Your task to perform on an android device: turn off location history Image 0: 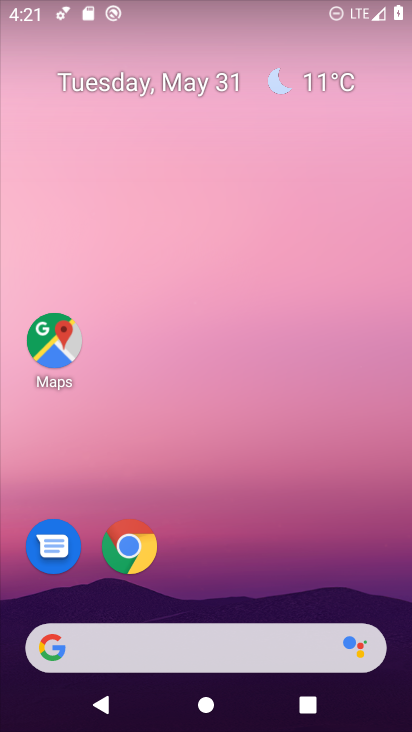
Step 0: drag from (256, 549) to (126, 39)
Your task to perform on an android device: turn off location history Image 1: 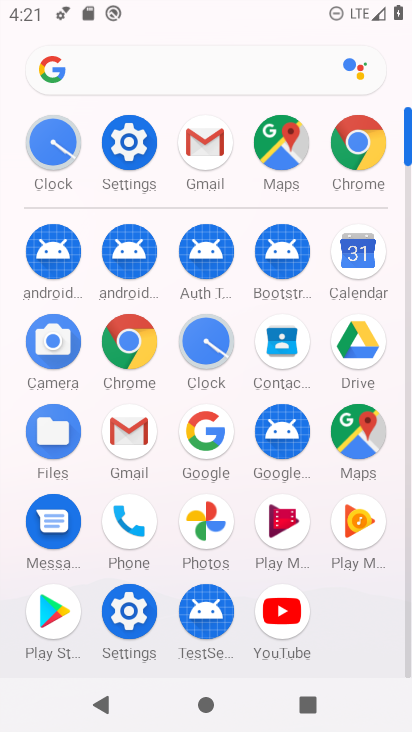
Step 1: click (126, 132)
Your task to perform on an android device: turn off location history Image 2: 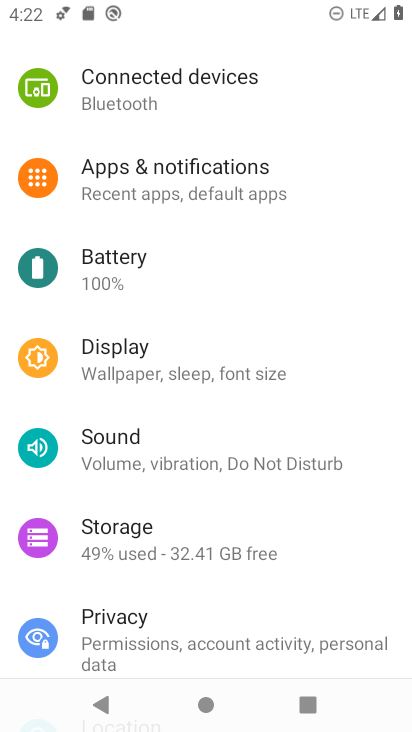
Step 2: drag from (225, 468) to (175, 115)
Your task to perform on an android device: turn off location history Image 3: 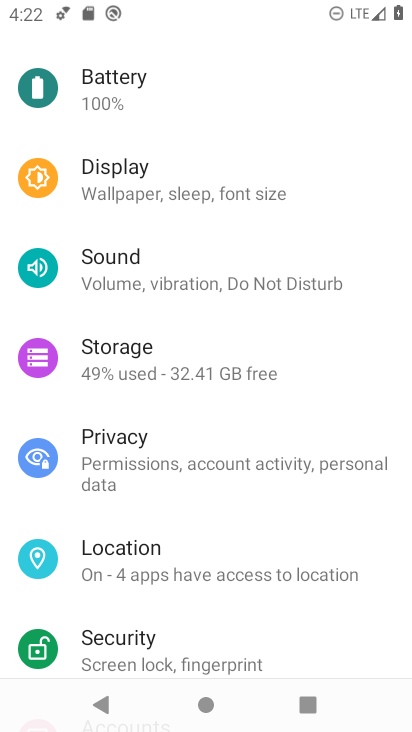
Step 3: click (179, 538)
Your task to perform on an android device: turn off location history Image 4: 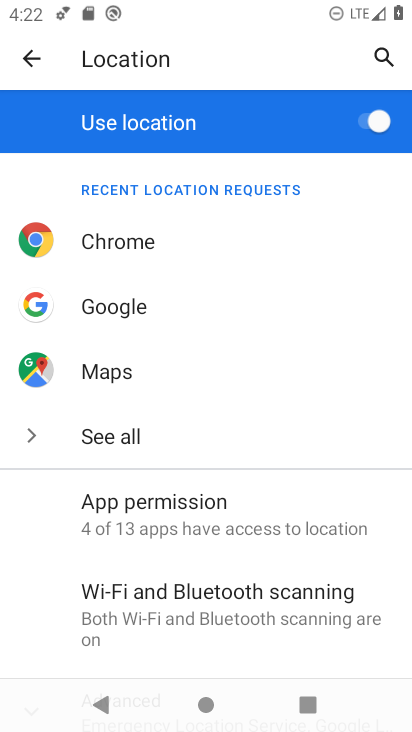
Step 4: drag from (232, 565) to (193, 222)
Your task to perform on an android device: turn off location history Image 5: 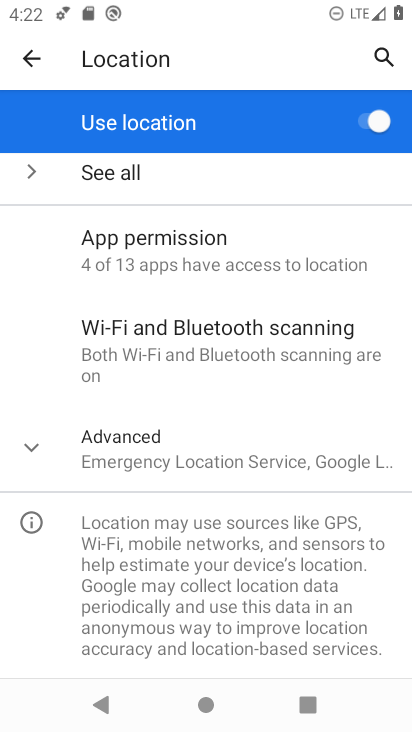
Step 5: click (188, 440)
Your task to perform on an android device: turn off location history Image 6: 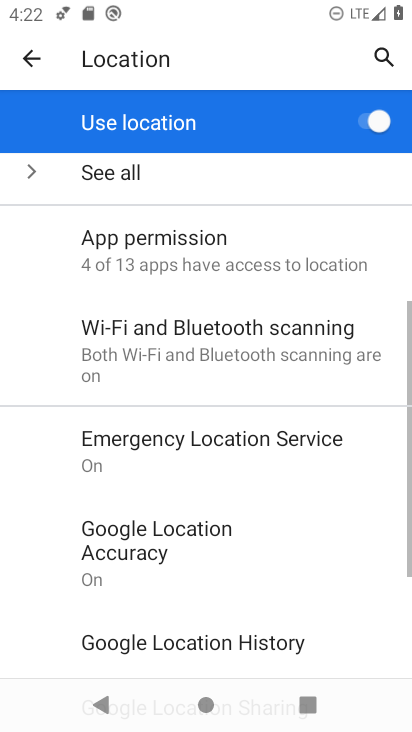
Step 6: drag from (223, 466) to (226, 229)
Your task to perform on an android device: turn off location history Image 7: 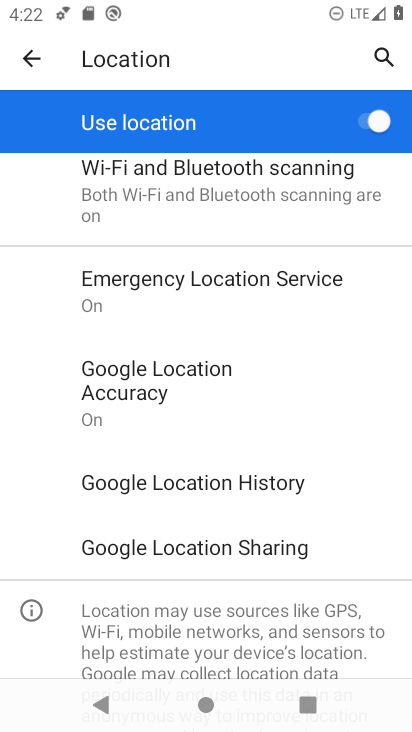
Step 7: click (247, 482)
Your task to perform on an android device: turn off location history Image 8: 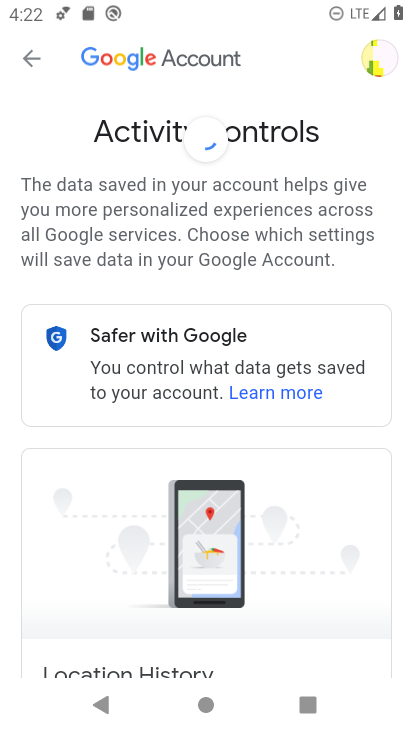
Step 8: drag from (257, 519) to (173, 42)
Your task to perform on an android device: turn off location history Image 9: 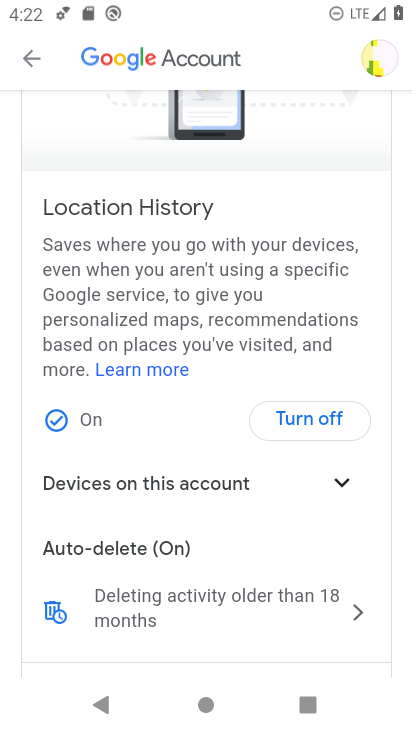
Step 9: click (309, 420)
Your task to perform on an android device: turn off location history Image 10: 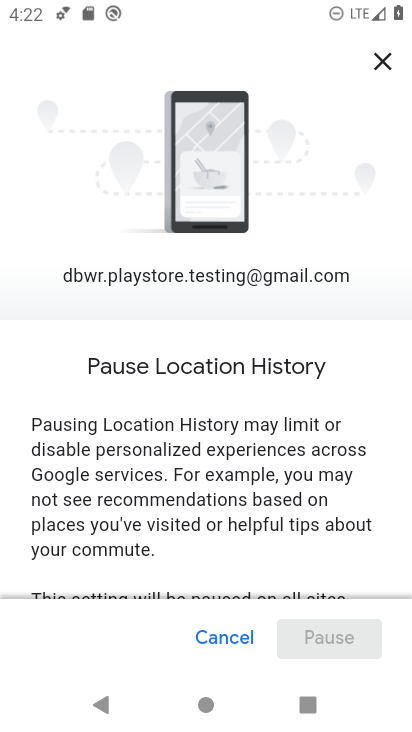
Step 10: click (337, 643)
Your task to perform on an android device: turn off location history Image 11: 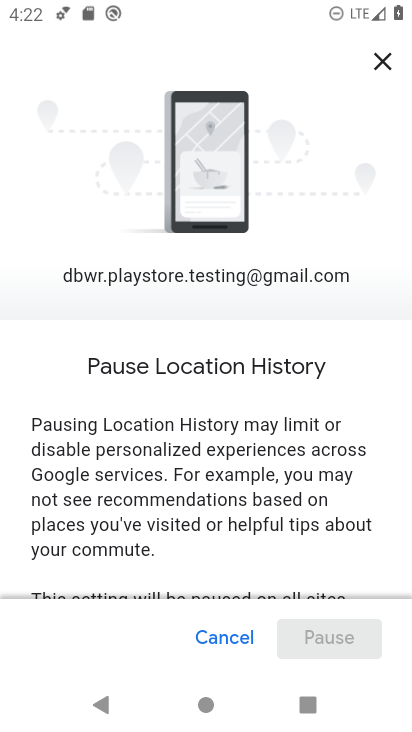
Step 11: drag from (230, 213) to (196, 53)
Your task to perform on an android device: turn off location history Image 12: 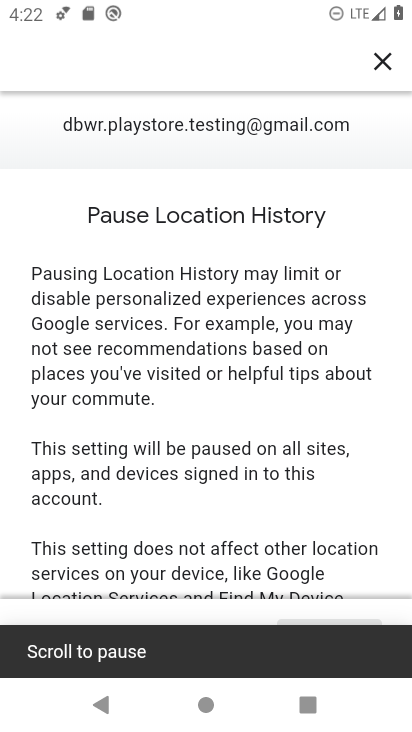
Step 12: drag from (281, 519) to (205, 1)
Your task to perform on an android device: turn off location history Image 13: 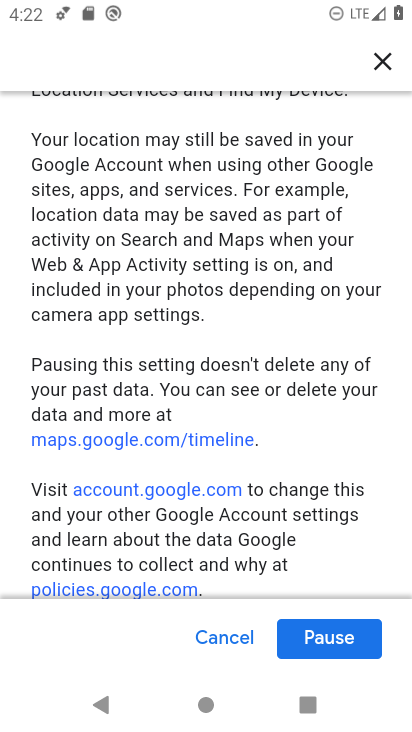
Step 13: drag from (273, 517) to (217, 121)
Your task to perform on an android device: turn off location history Image 14: 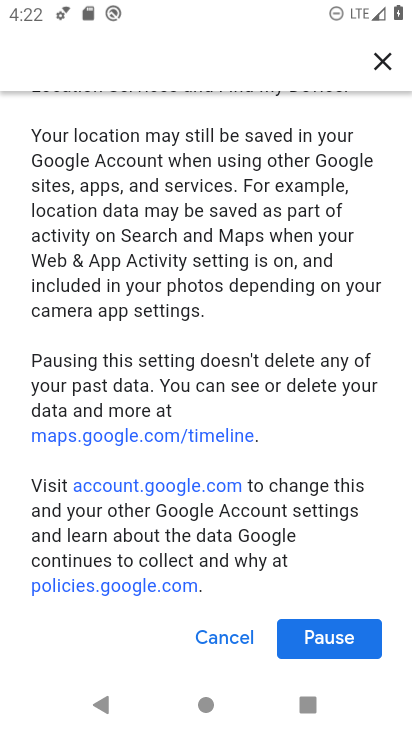
Step 14: click (338, 634)
Your task to perform on an android device: turn off location history Image 15: 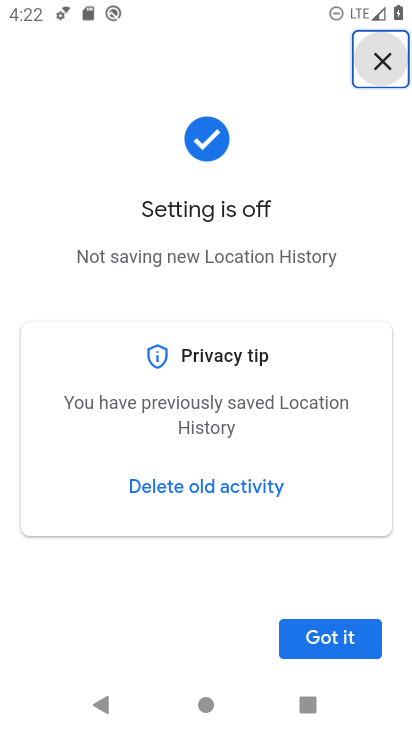
Step 15: click (341, 625)
Your task to perform on an android device: turn off location history Image 16: 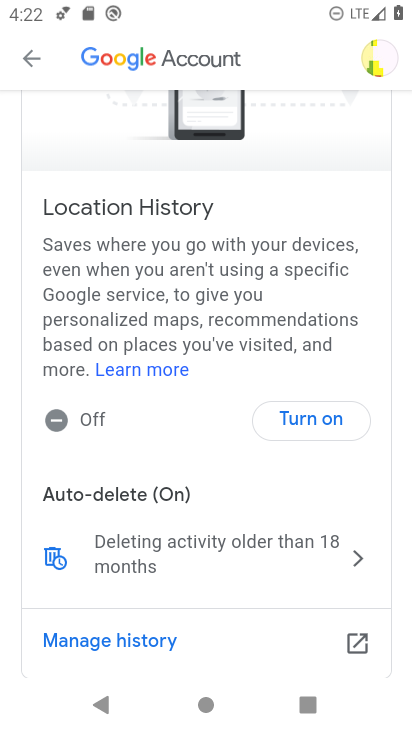
Step 16: task complete